Your task to perform on an android device: set the stopwatch Image 0: 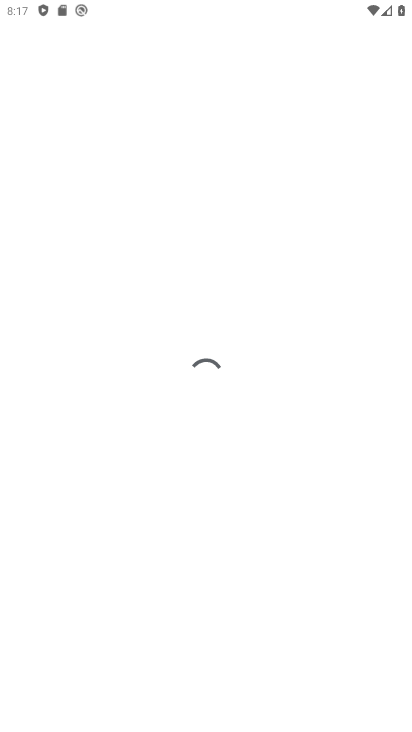
Step 0: press home button
Your task to perform on an android device: set the stopwatch Image 1: 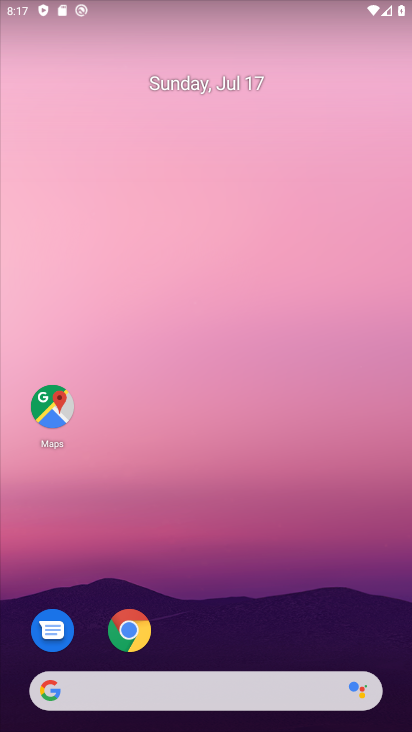
Step 1: drag from (308, 627) to (183, 326)
Your task to perform on an android device: set the stopwatch Image 2: 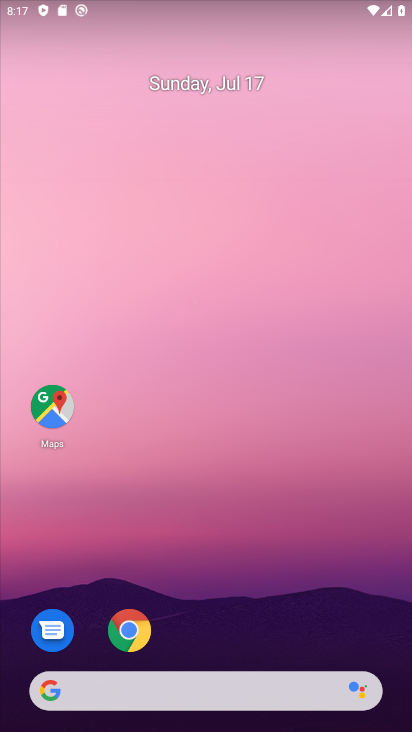
Step 2: drag from (275, 645) to (294, 300)
Your task to perform on an android device: set the stopwatch Image 3: 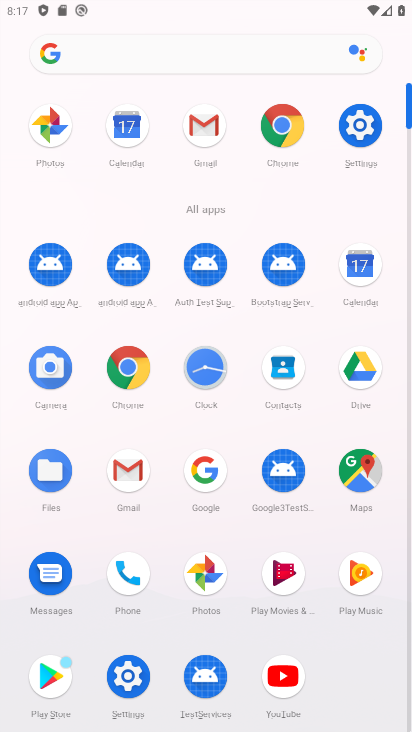
Step 3: click (373, 279)
Your task to perform on an android device: set the stopwatch Image 4: 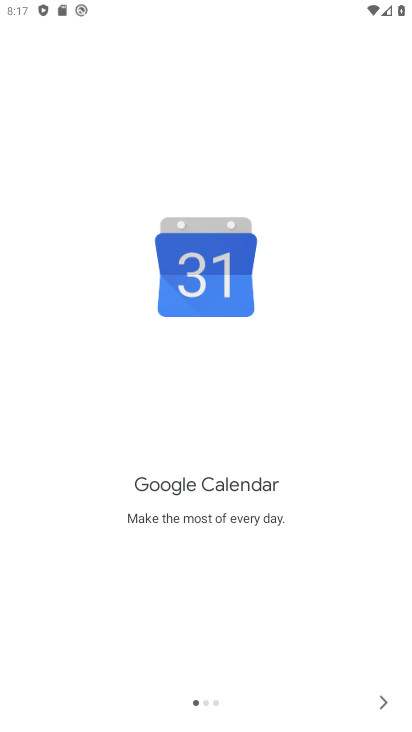
Step 4: click (394, 694)
Your task to perform on an android device: set the stopwatch Image 5: 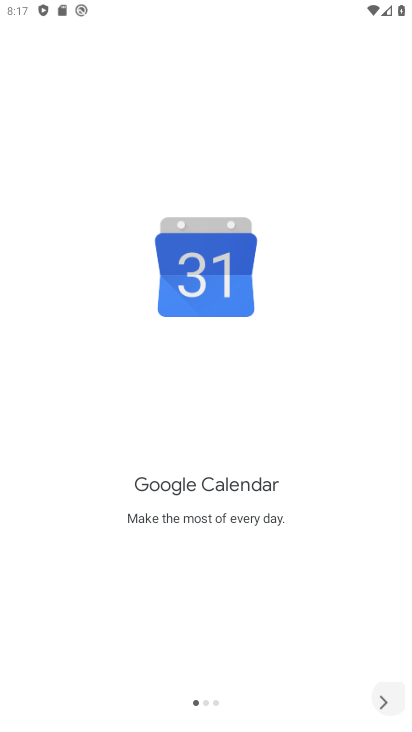
Step 5: click (394, 694)
Your task to perform on an android device: set the stopwatch Image 6: 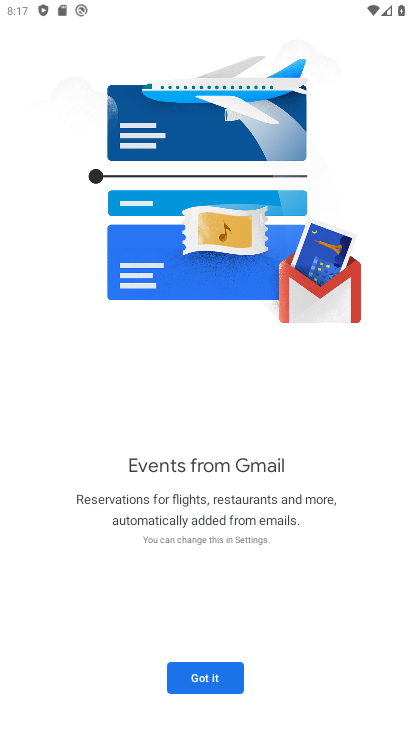
Step 6: click (394, 694)
Your task to perform on an android device: set the stopwatch Image 7: 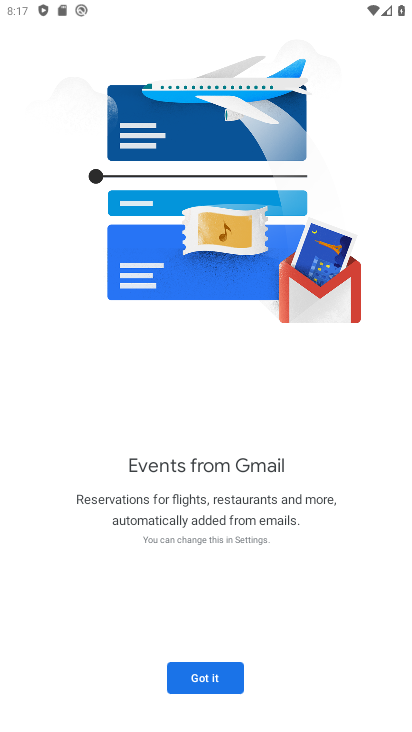
Step 7: click (394, 694)
Your task to perform on an android device: set the stopwatch Image 8: 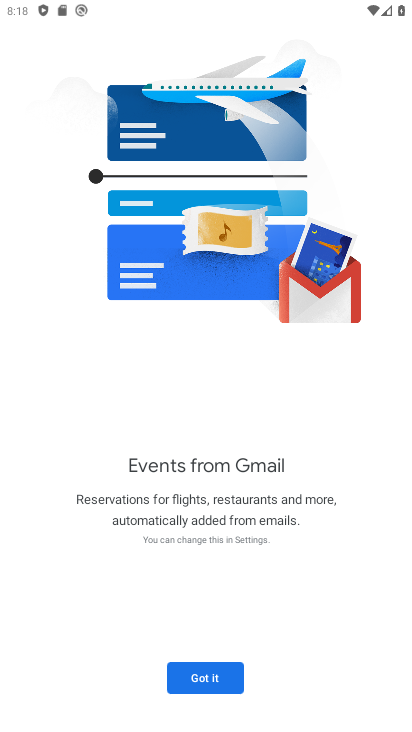
Step 8: click (225, 679)
Your task to perform on an android device: set the stopwatch Image 9: 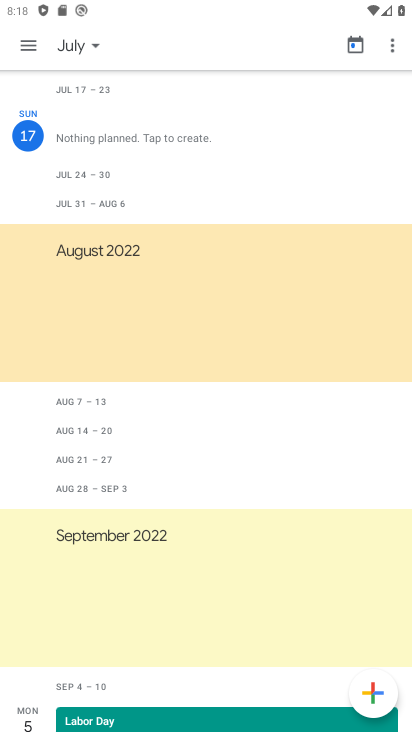
Step 9: task complete